Your task to perform on an android device: Check the weather Image 0: 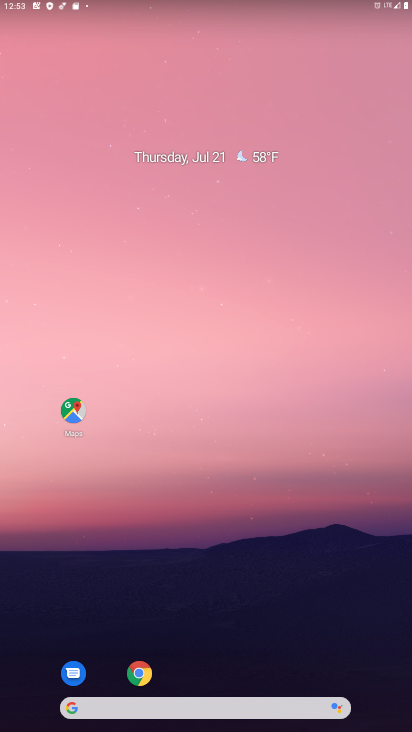
Step 0: click (211, 693)
Your task to perform on an android device: Check the weather Image 1: 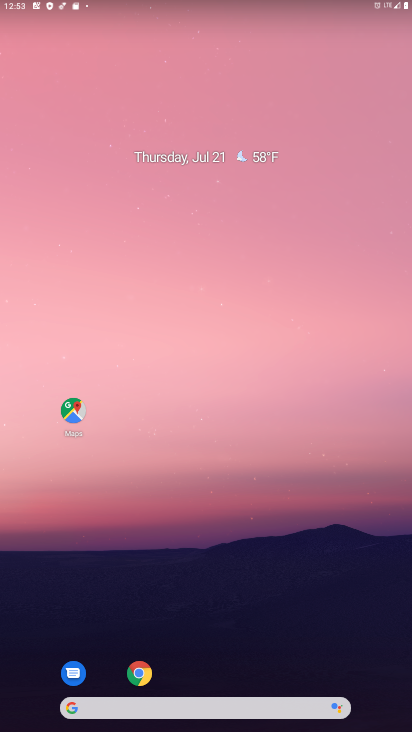
Step 1: drag from (205, 674) to (222, 357)
Your task to perform on an android device: Check the weather Image 2: 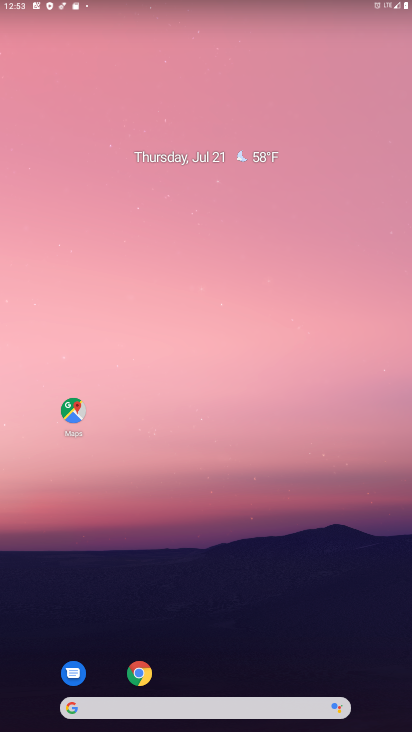
Step 2: click (203, 291)
Your task to perform on an android device: Check the weather Image 3: 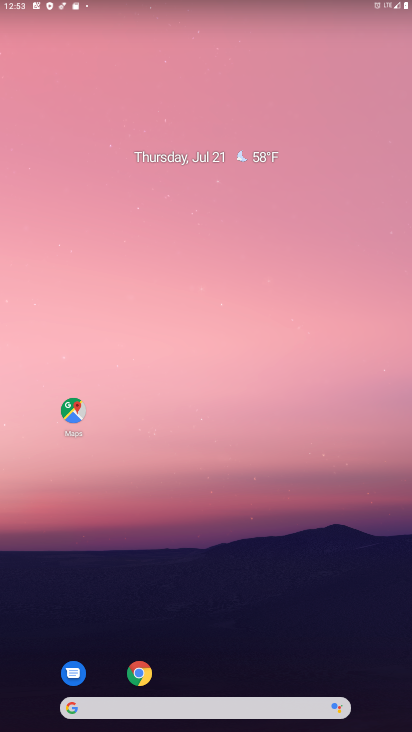
Step 3: drag from (187, 683) to (191, 223)
Your task to perform on an android device: Check the weather Image 4: 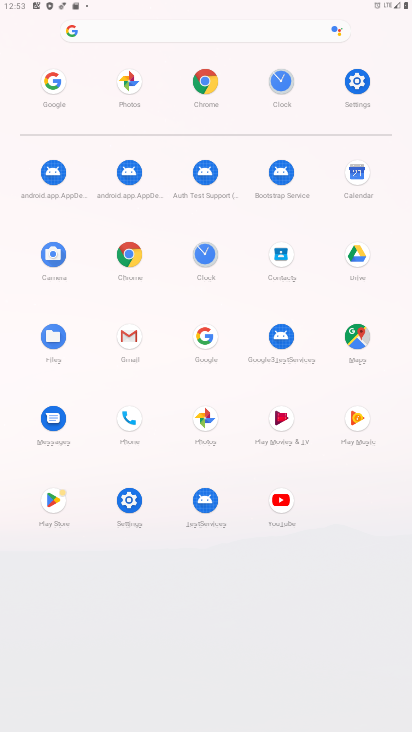
Step 4: click (203, 83)
Your task to perform on an android device: Check the weather Image 5: 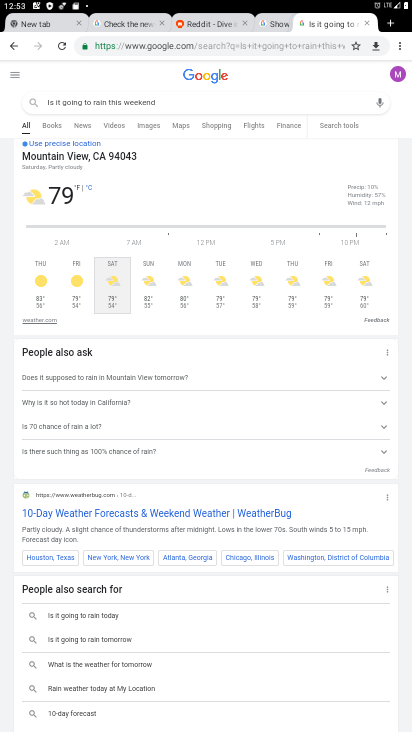
Step 5: click (388, 23)
Your task to perform on an android device: Check the weather Image 6: 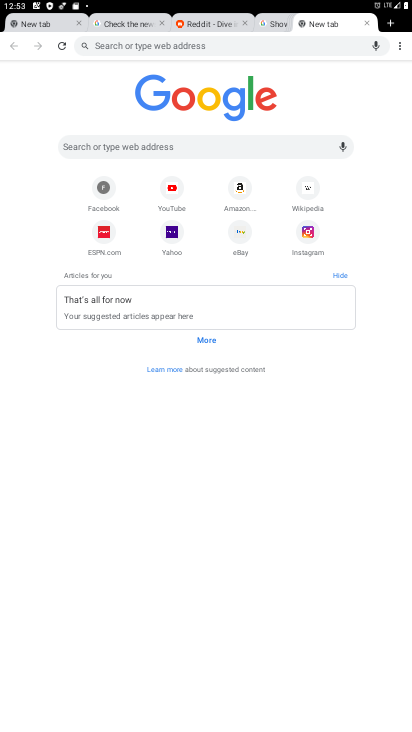
Step 6: click (145, 140)
Your task to perform on an android device: Check the weather Image 7: 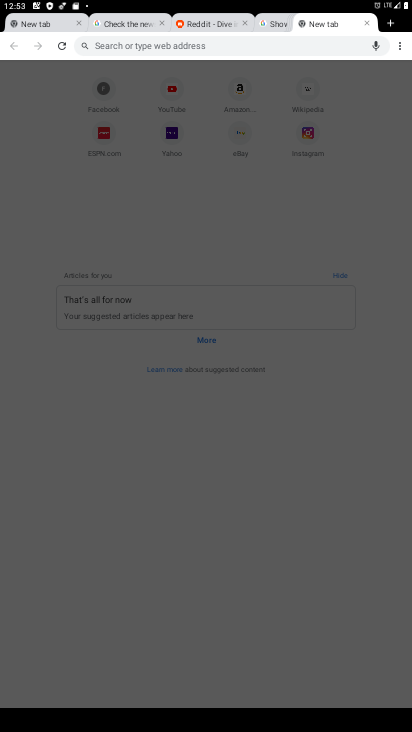
Step 7: type "Check the weather "
Your task to perform on an android device: Check the weather Image 8: 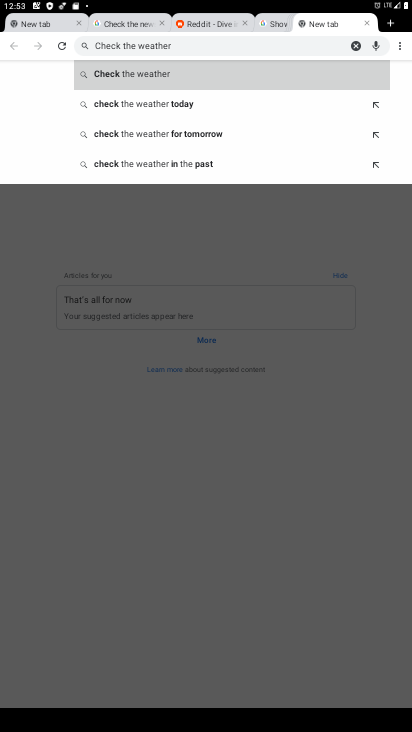
Step 8: click (197, 67)
Your task to perform on an android device: Check the weather Image 9: 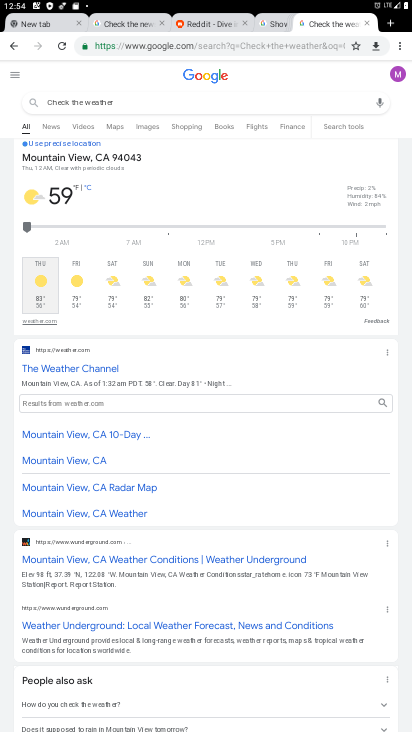
Step 9: task complete